Your task to perform on an android device: Open ESPN.com Image 0: 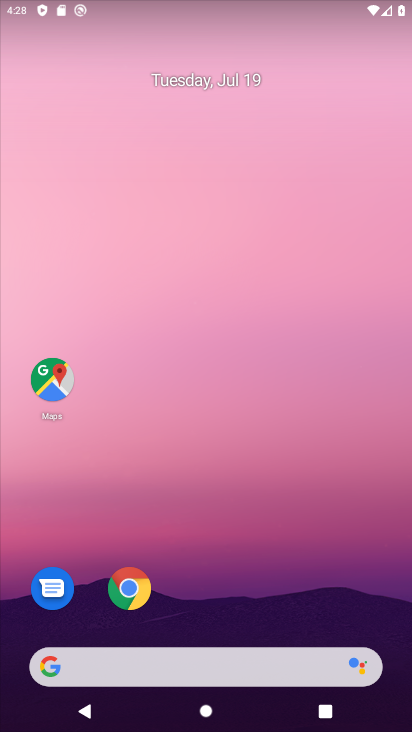
Step 0: click (133, 587)
Your task to perform on an android device: Open ESPN.com Image 1: 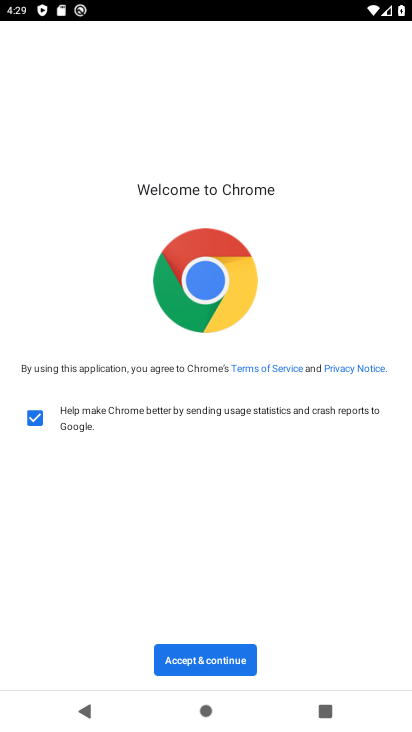
Step 1: click (237, 668)
Your task to perform on an android device: Open ESPN.com Image 2: 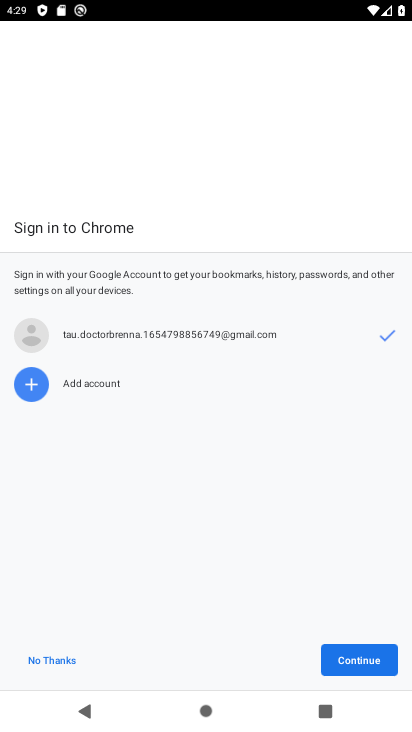
Step 2: click (370, 664)
Your task to perform on an android device: Open ESPN.com Image 3: 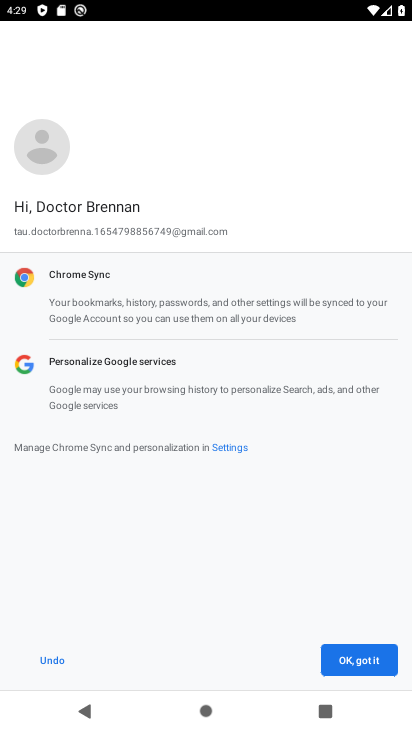
Step 3: click (373, 664)
Your task to perform on an android device: Open ESPN.com Image 4: 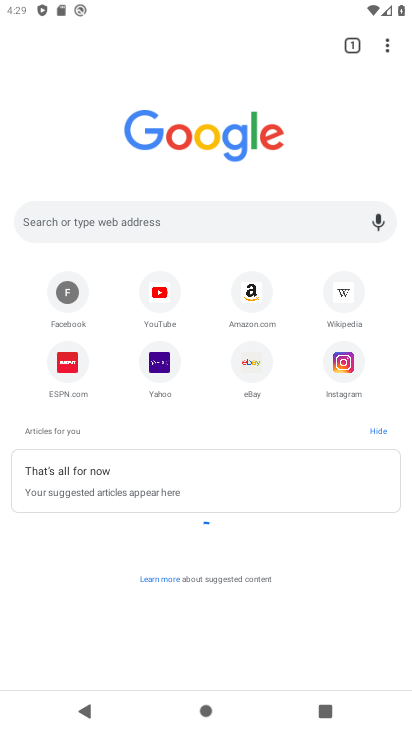
Step 4: click (91, 364)
Your task to perform on an android device: Open ESPN.com Image 5: 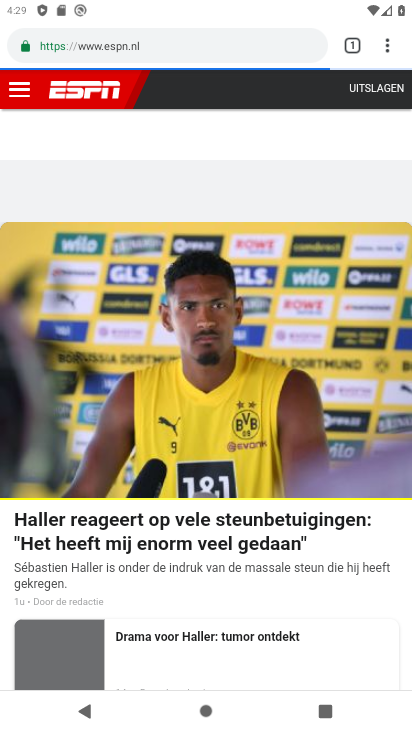
Step 5: task complete